Your task to perform on an android device: show emergency info Image 0: 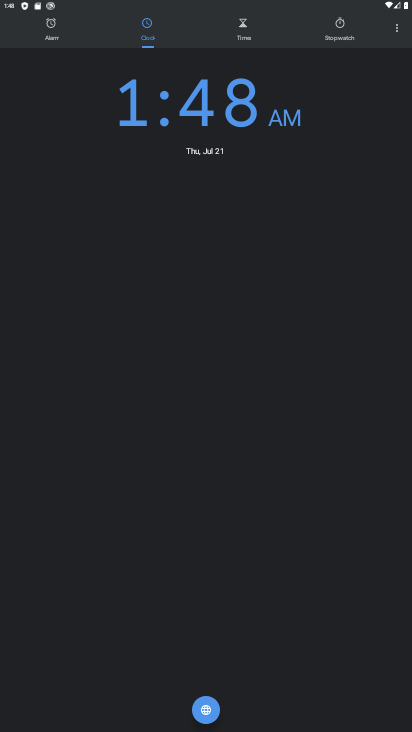
Step 0: press home button
Your task to perform on an android device: show emergency info Image 1: 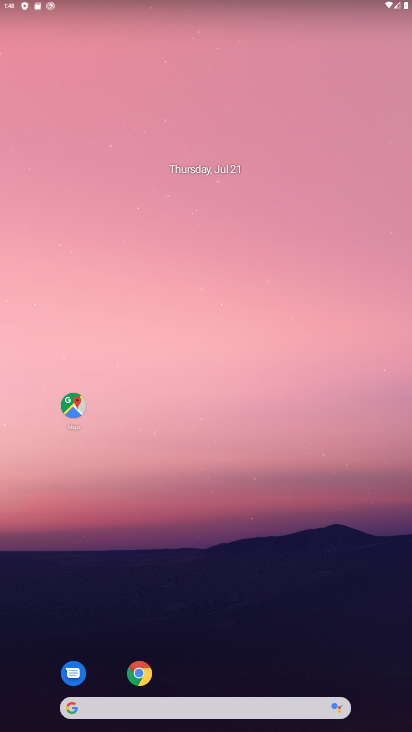
Step 1: drag from (187, 708) to (194, 47)
Your task to perform on an android device: show emergency info Image 2: 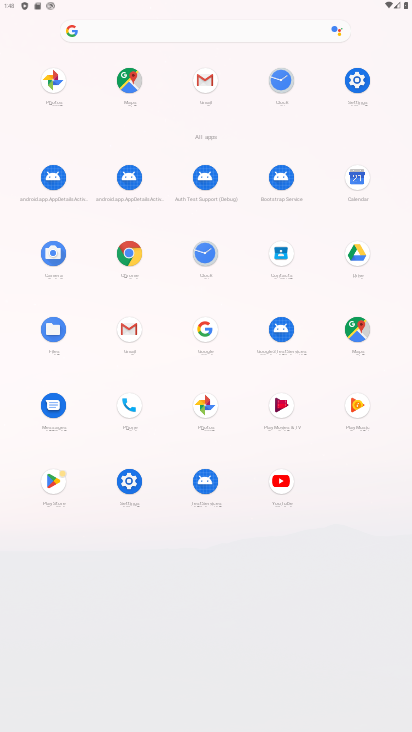
Step 2: click (356, 78)
Your task to perform on an android device: show emergency info Image 3: 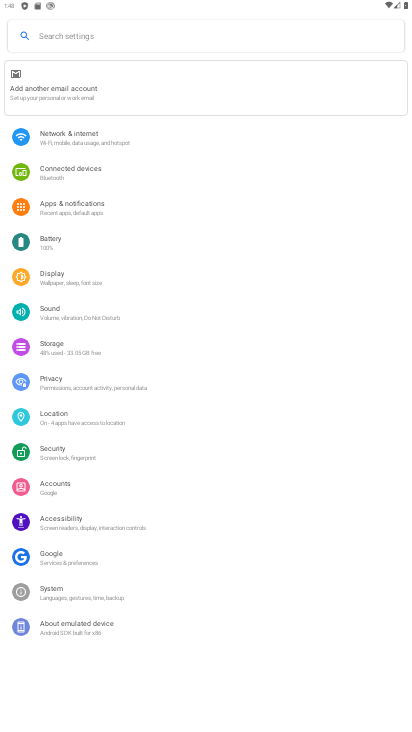
Step 3: click (54, 629)
Your task to perform on an android device: show emergency info Image 4: 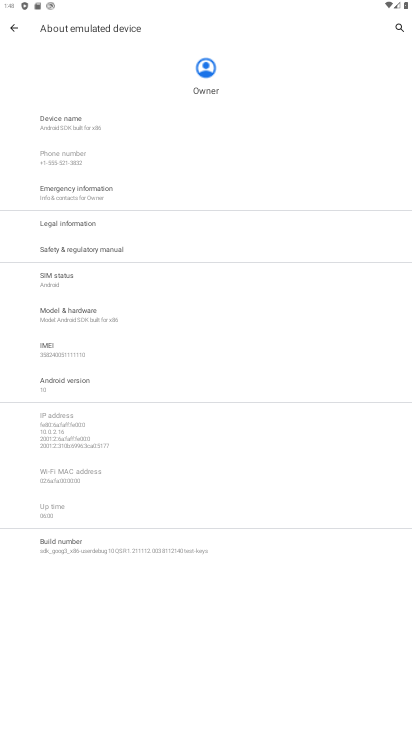
Step 4: click (57, 618)
Your task to perform on an android device: show emergency info Image 5: 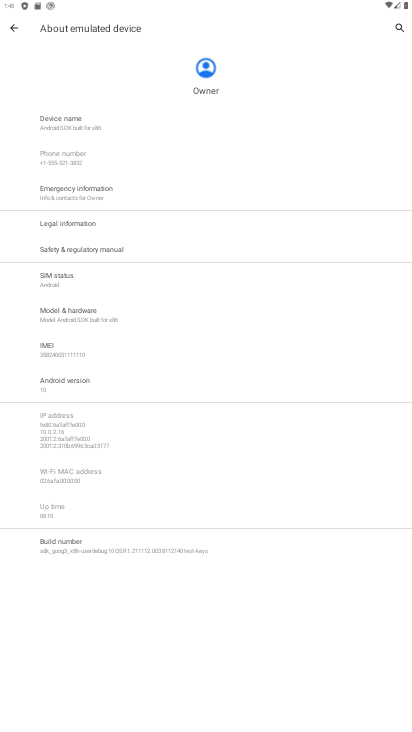
Step 5: click (78, 194)
Your task to perform on an android device: show emergency info Image 6: 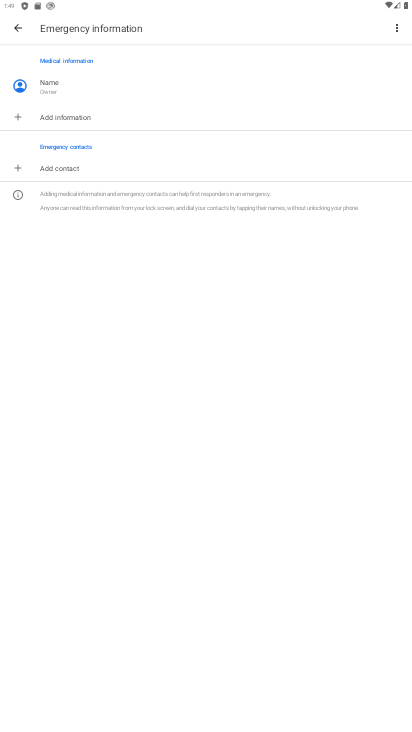
Step 6: task complete